Your task to perform on an android device: Open the Play Movies app and select the watchlist tab. Image 0: 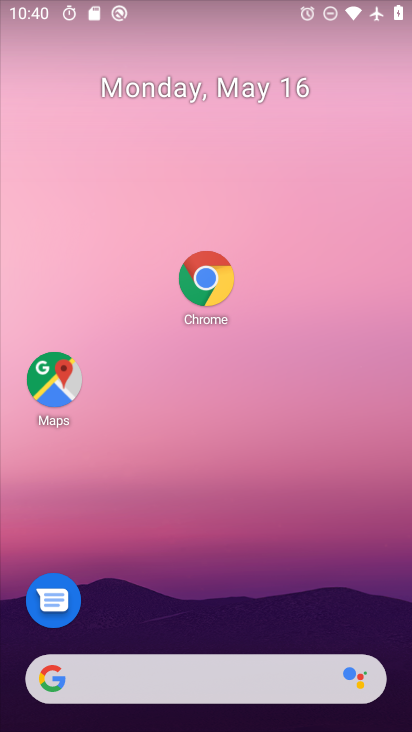
Step 0: drag from (221, 682) to (298, 277)
Your task to perform on an android device: Open the Play Movies app and select the watchlist tab. Image 1: 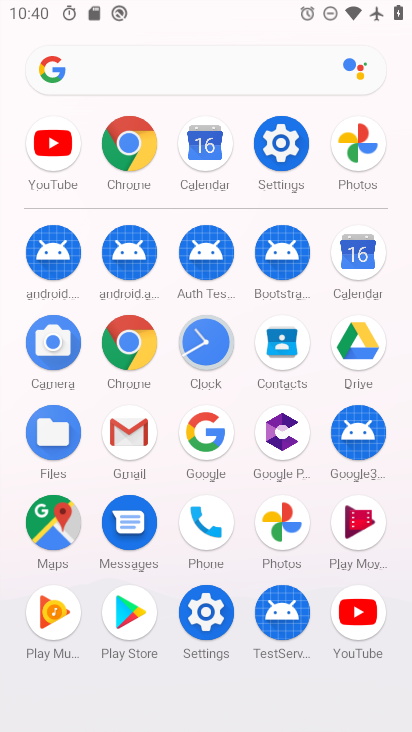
Step 1: click (351, 537)
Your task to perform on an android device: Open the Play Movies app and select the watchlist tab. Image 2: 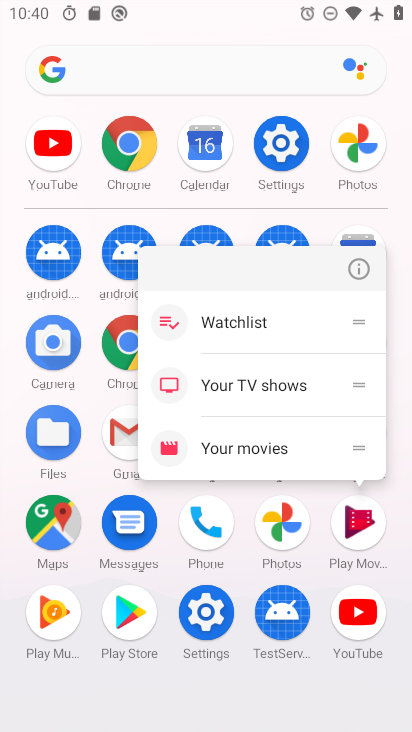
Step 2: click (357, 526)
Your task to perform on an android device: Open the Play Movies app and select the watchlist tab. Image 3: 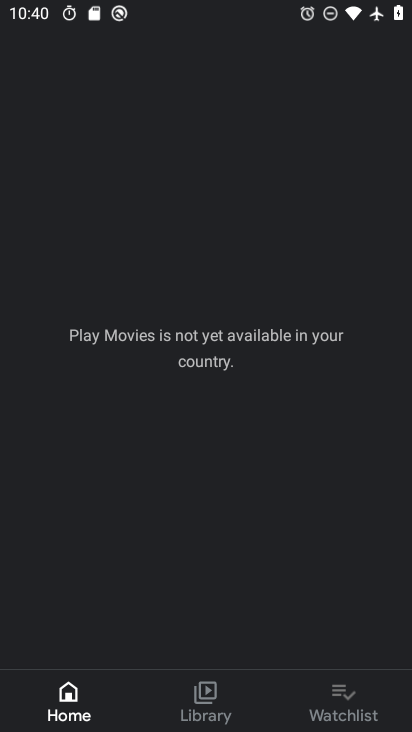
Step 3: click (354, 704)
Your task to perform on an android device: Open the Play Movies app and select the watchlist tab. Image 4: 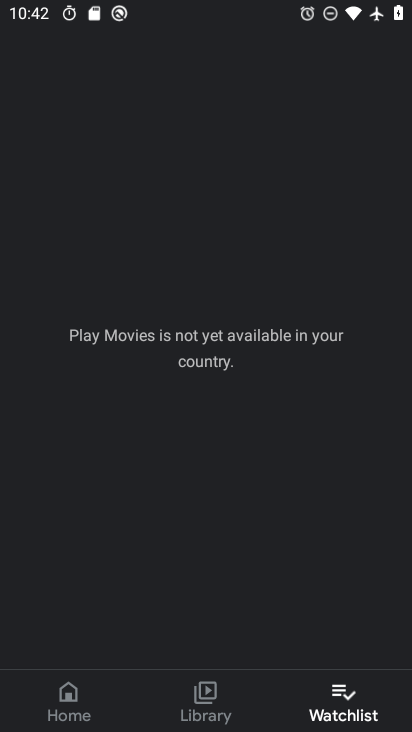
Step 4: task complete